Your task to perform on an android device: Go to wifi settings Image 0: 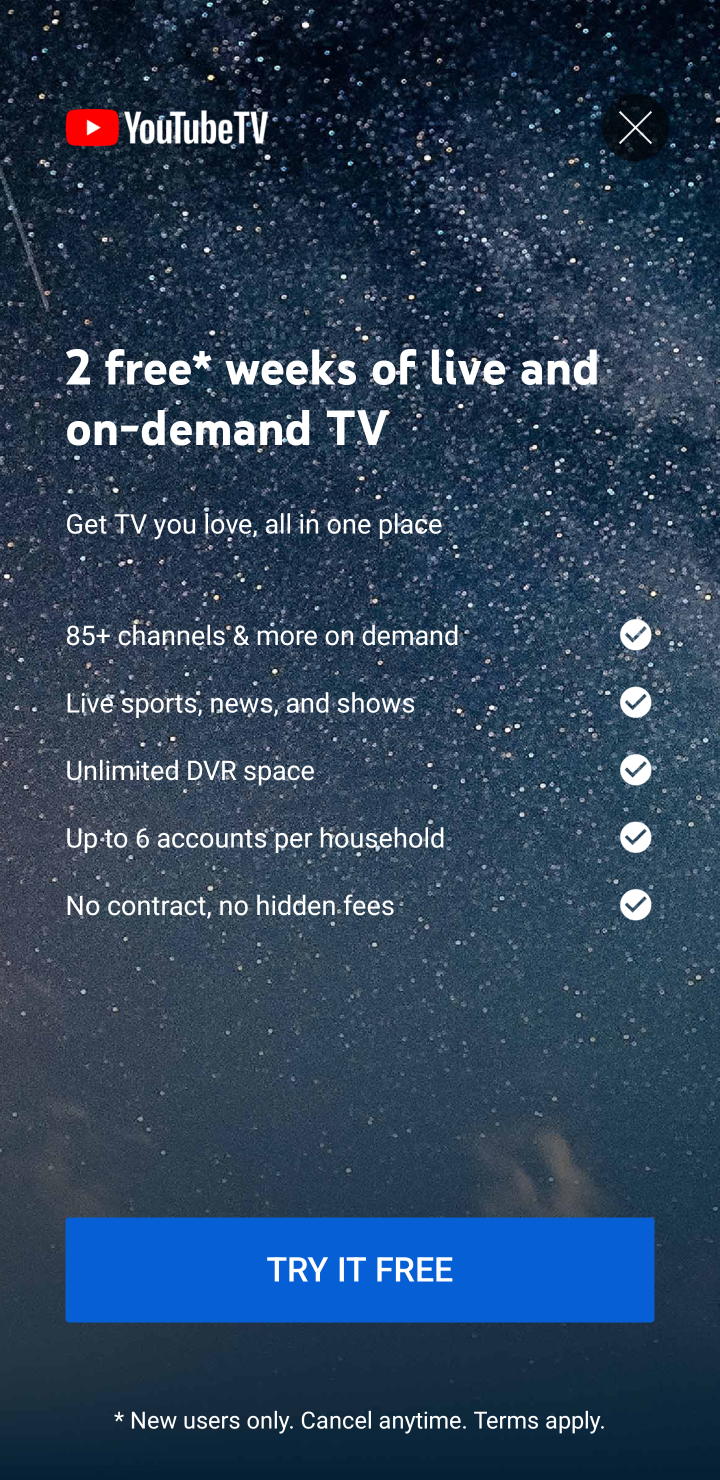
Step 0: press home button
Your task to perform on an android device: Go to wifi settings Image 1: 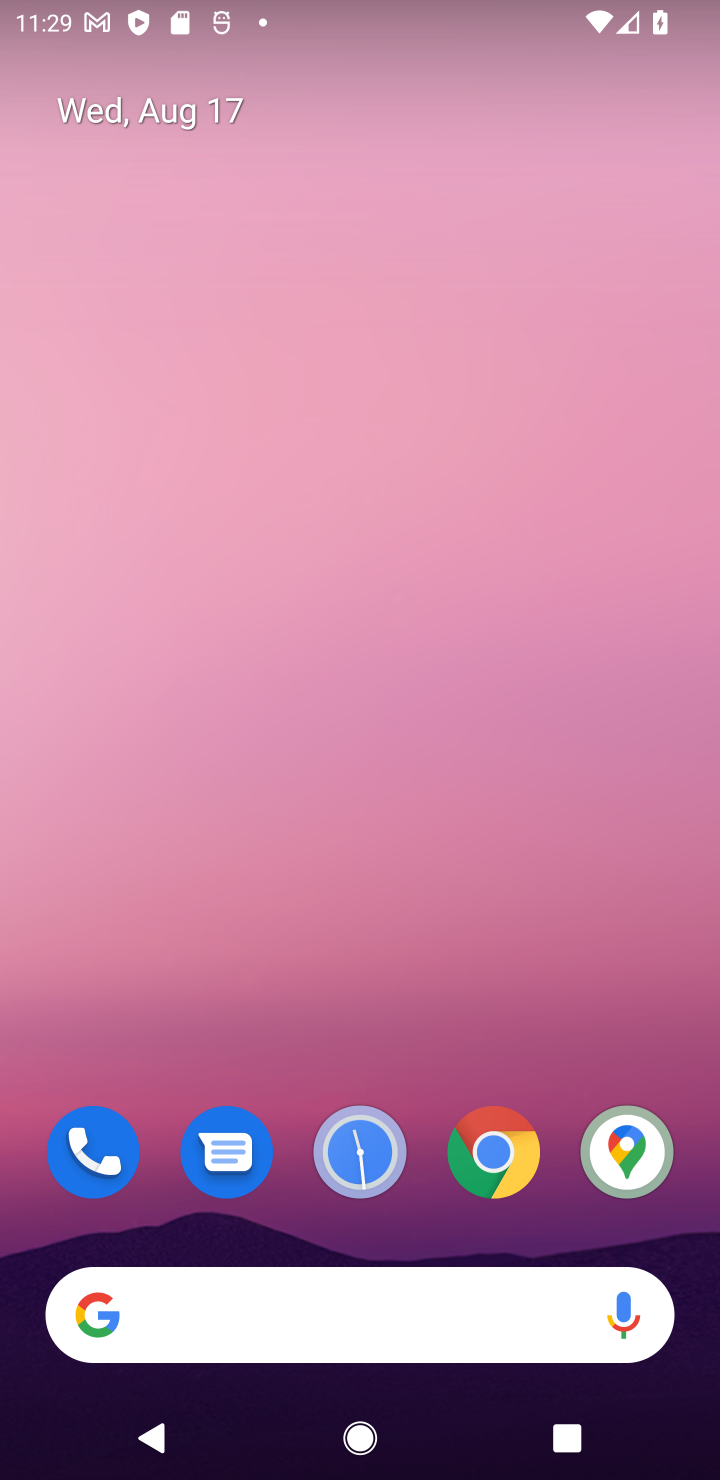
Step 1: drag from (669, 1024) to (225, 66)
Your task to perform on an android device: Go to wifi settings Image 2: 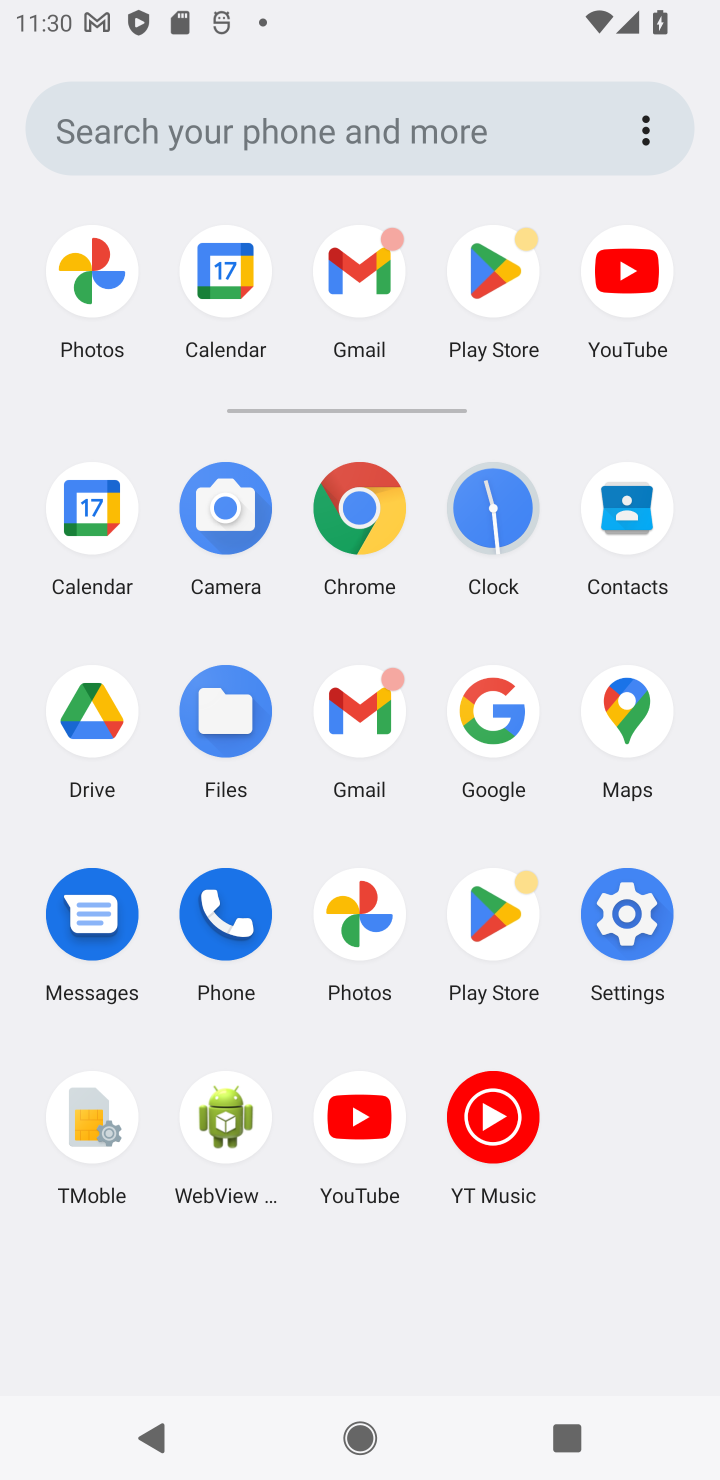
Step 2: click (619, 931)
Your task to perform on an android device: Go to wifi settings Image 3: 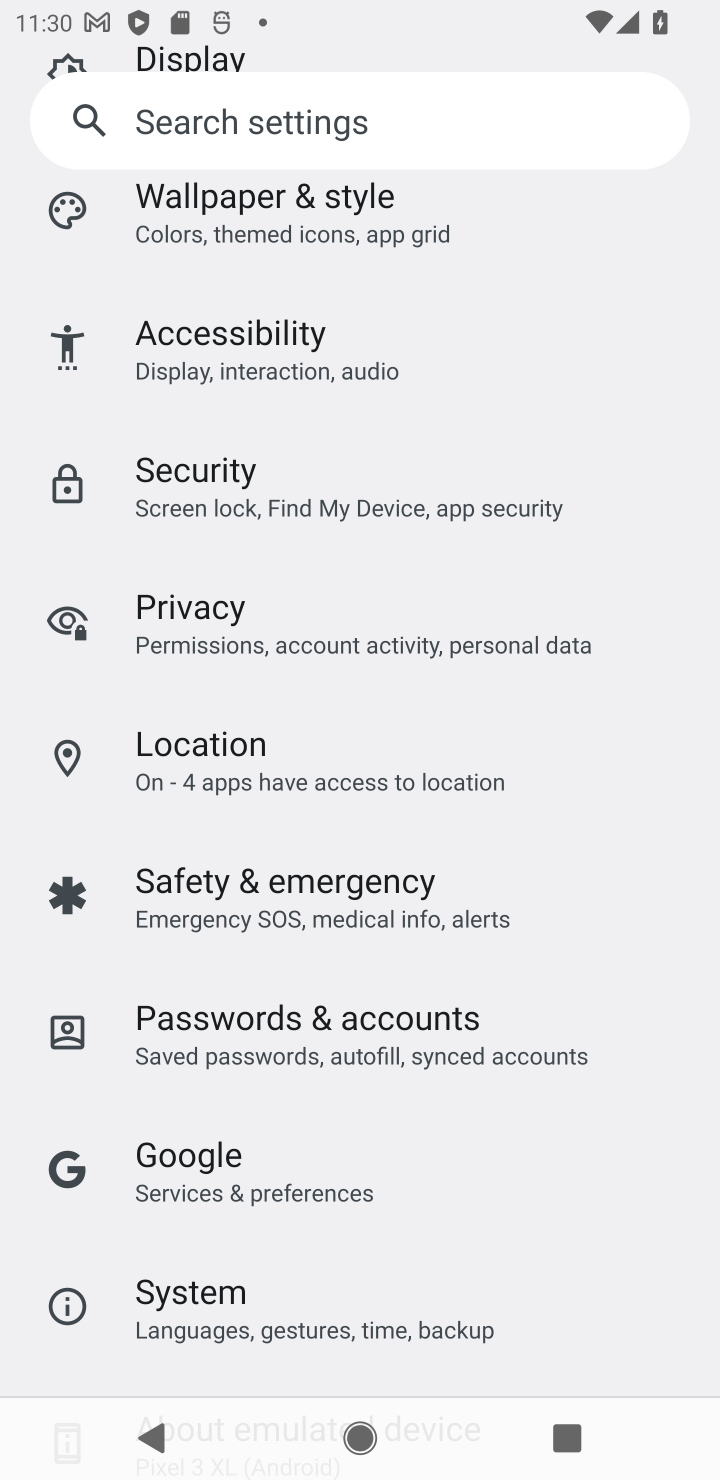
Step 3: drag from (313, 290) to (468, 1363)
Your task to perform on an android device: Go to wifi settings Image 4: 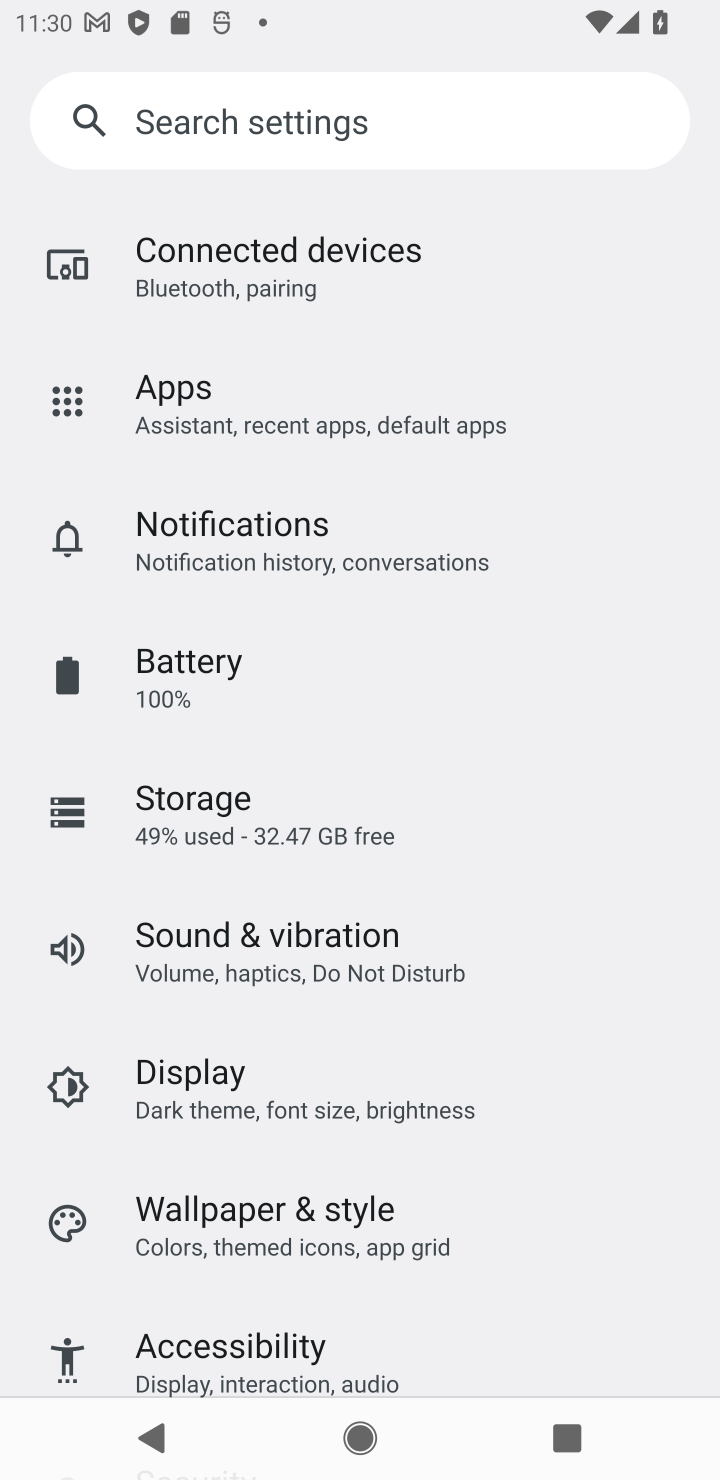
Step 4: drag from (428, 324) to (511, 1347)
Your task to perform on an android device: Go to wifi settings Image 5: 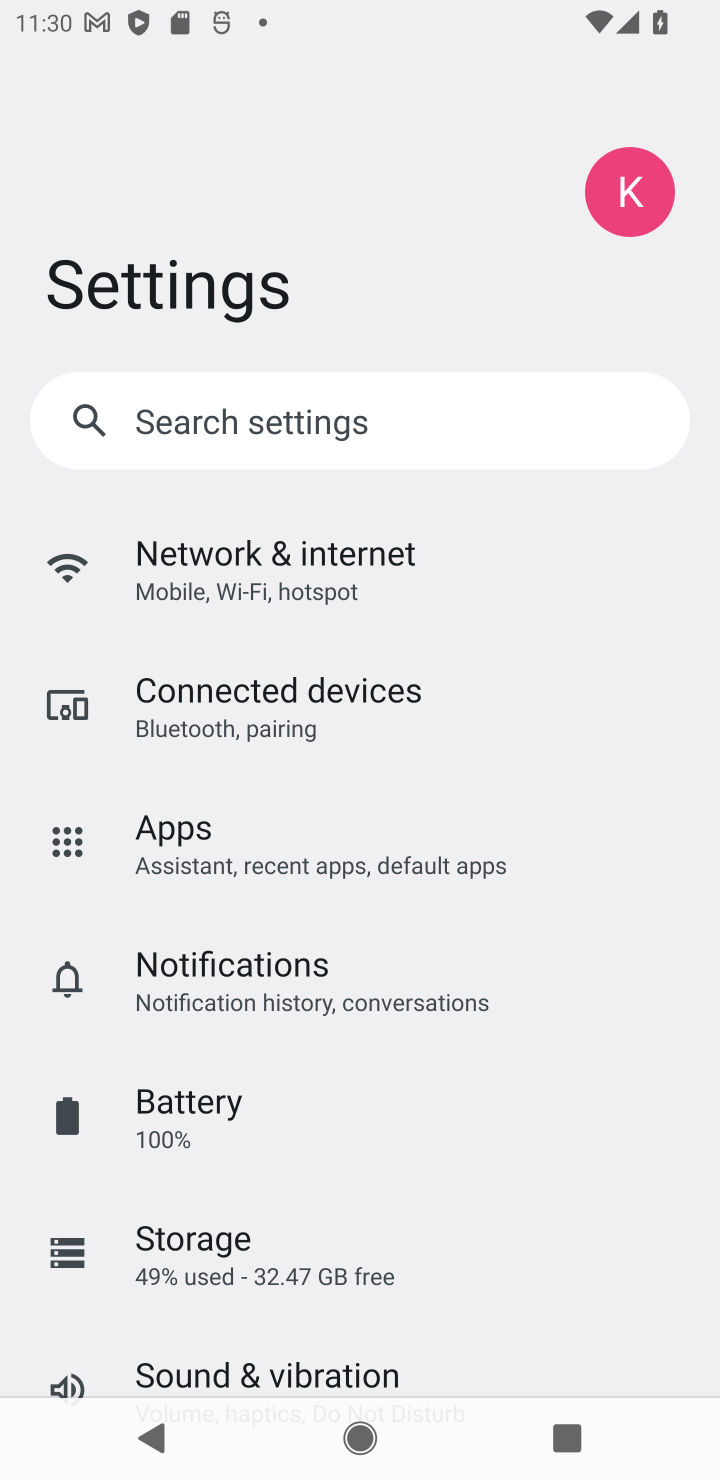
Step 5: click (400, 573)
Your task to perform on an android device: Go to wifi settings Image 6: 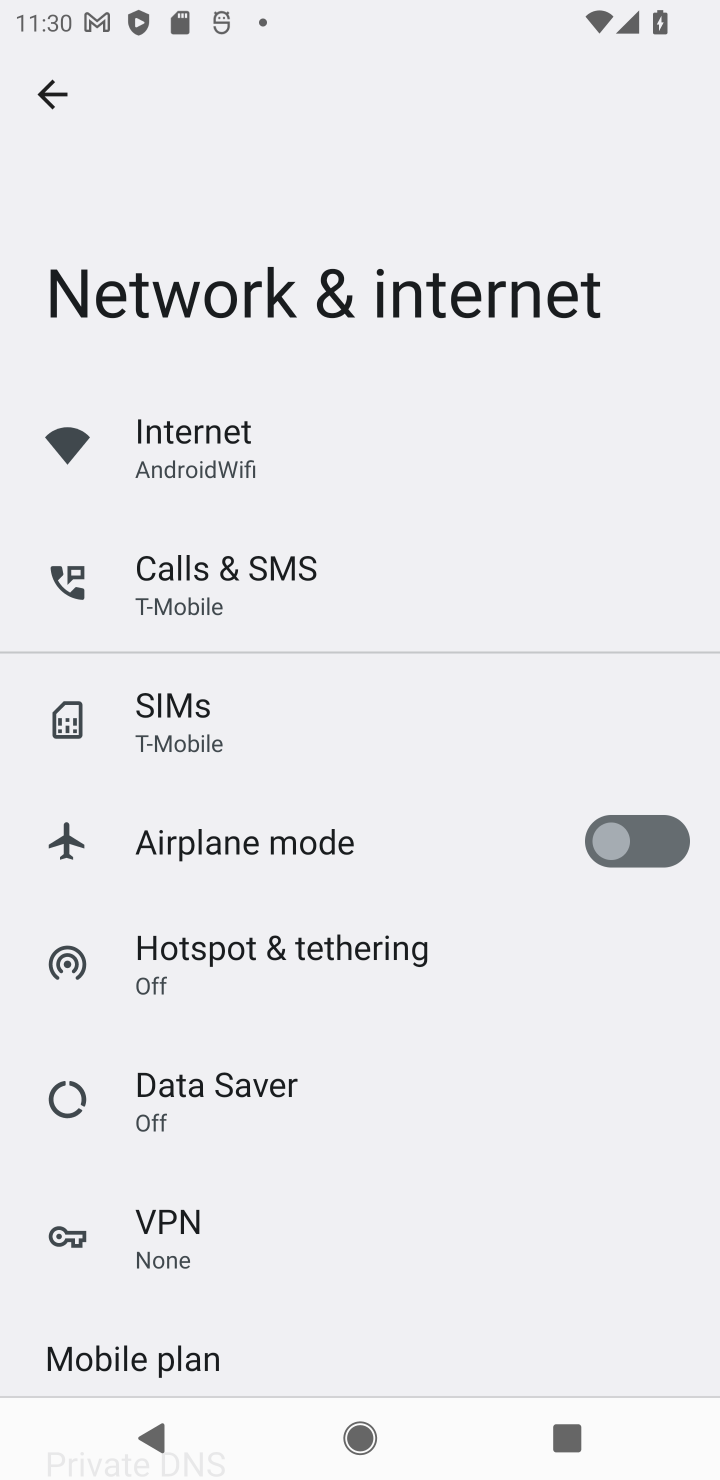
Step 6: task complete